Your task to perform on an android device: open a bookmark in the chrome app Image 0: 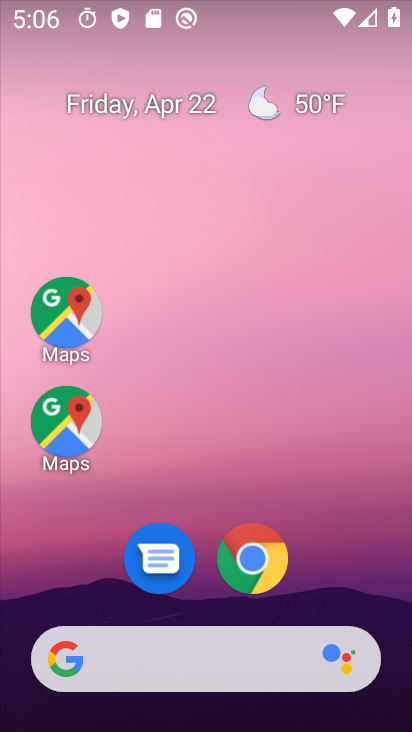
Step 0: click (268, 564)
Your task to perform on an android device: open a bookmark in the chrome app Image 1: 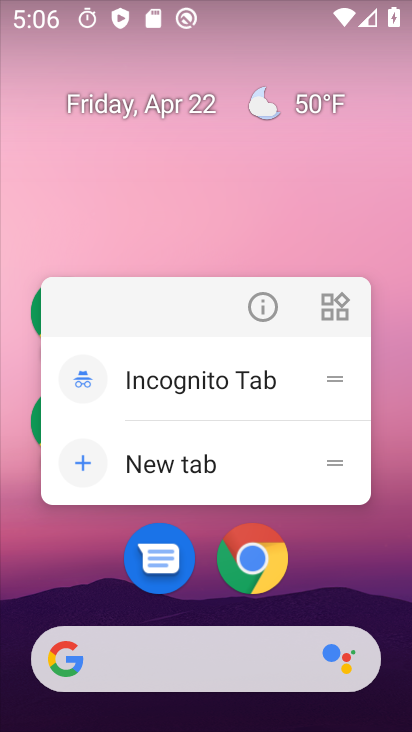
Step 1: click (258, 579)
Your task to perform on an android device: open a bookmark in the chrome app Image 2: 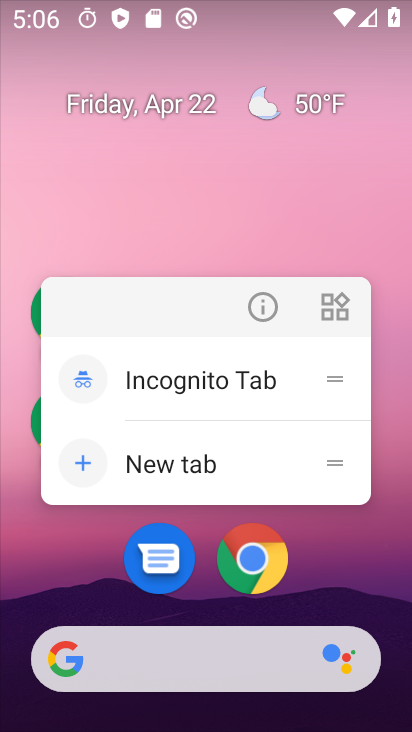
Step 2: click (263, 568)
Your task to perform on an android device: open a bookmark in the chrome app Image 3: 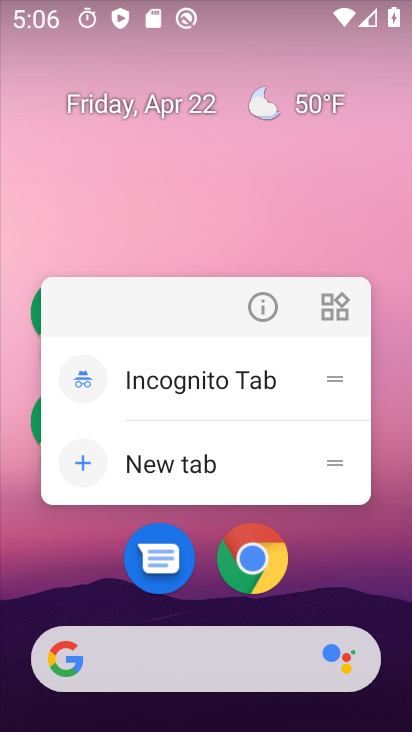
Step 3: click (265, 580)
Your task to perform on an android device: open a bookmark in the chrome app Image 4: 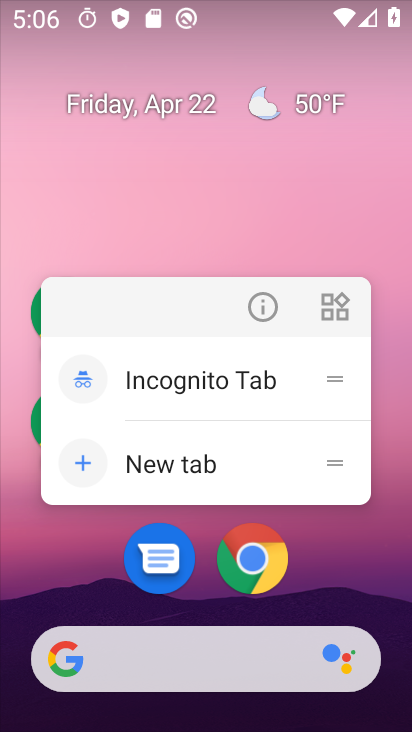
Step 4: click (247, 556)
Your task to perform on an android device: open a bookmark in the chrome app Image 5: 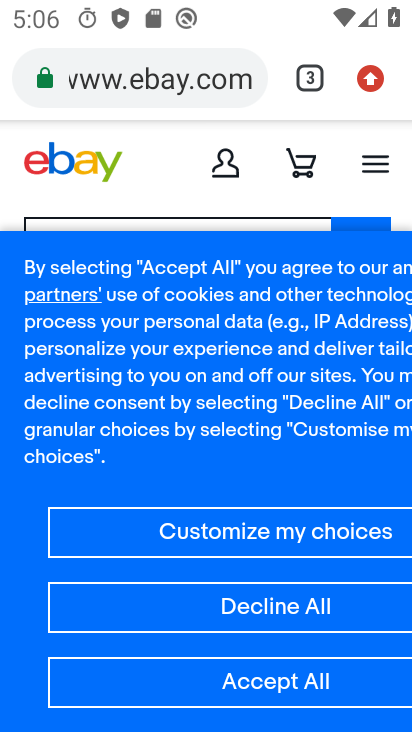
Step 5: click (368, 85)
Your task to perform on an android device: open a bookmark in the chrome app Image 6: 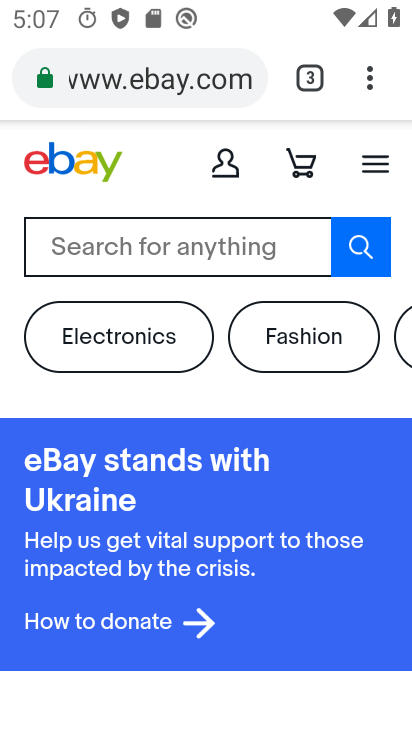
Step 6: click (370, 81)
Your task to perform on an android device: open a bookmark in the chrome app Image 7: 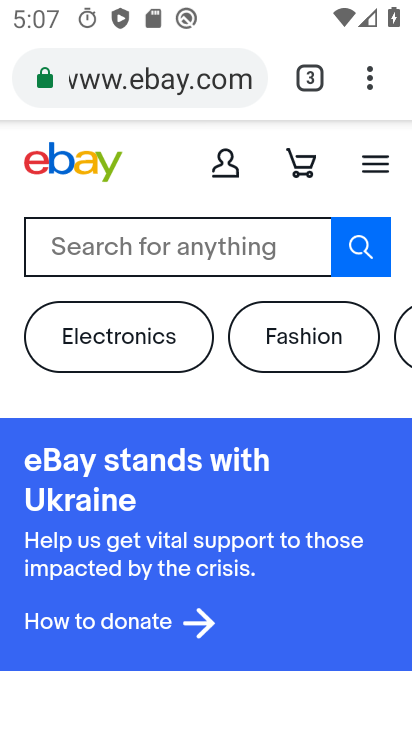
Step 7: click (373, 84)
Your task to perform on an android device: open a bookmark in the chrome app Image 8: 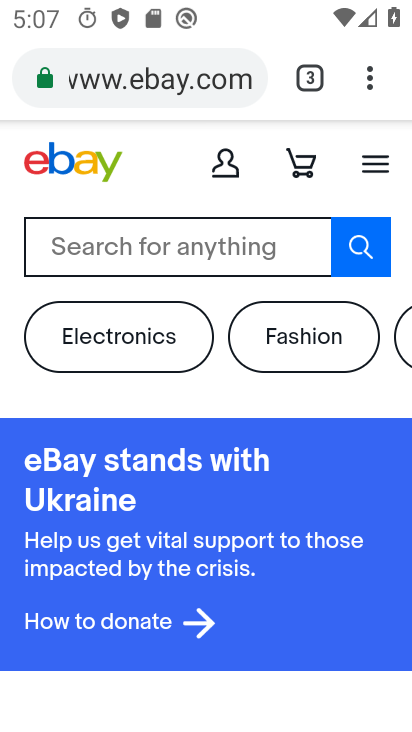
Step 8: click (365, 84)
Your task to perform on an android device: open a bookmark in the chrome app Image 9: 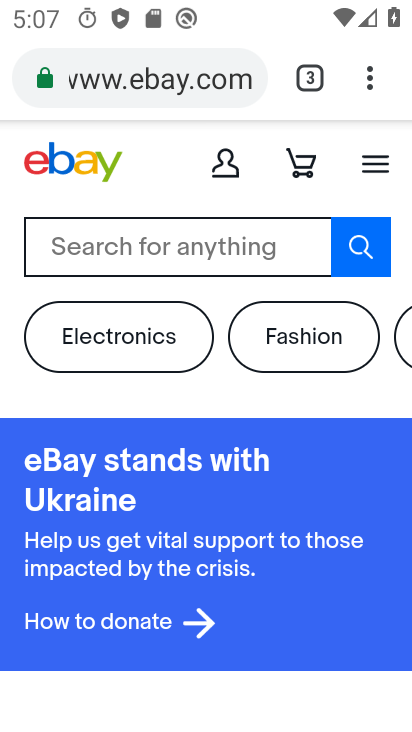
Step 9: click (366, 79)
Your task to perform on an android device: open a bookmark in the chrome app Image 10: 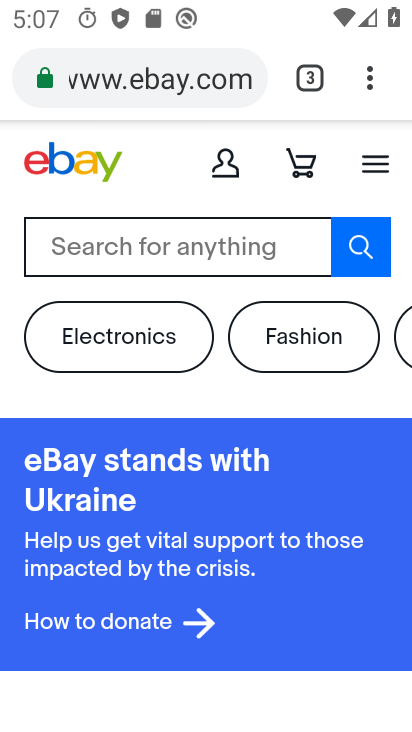
Step 10: click (372, 71)
Your task to perform on an android device: open a bookmark in the chrome app Image 11: 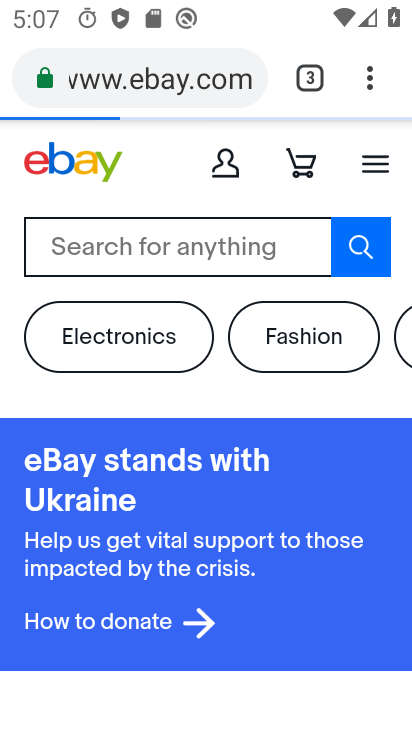
Step 11: click (372, 76)
Your task to perform on an android device: open a bookmark in the chrome app Image 12: 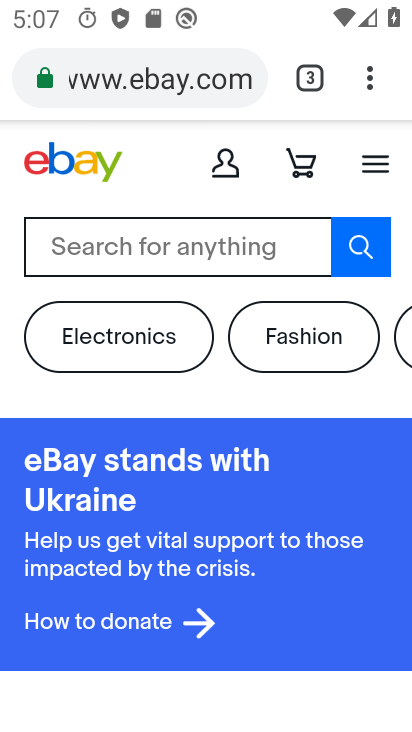
Step 12: click (375, 85)
Your task to perform on an android device: open a bookmark in the chrome app Image 13: 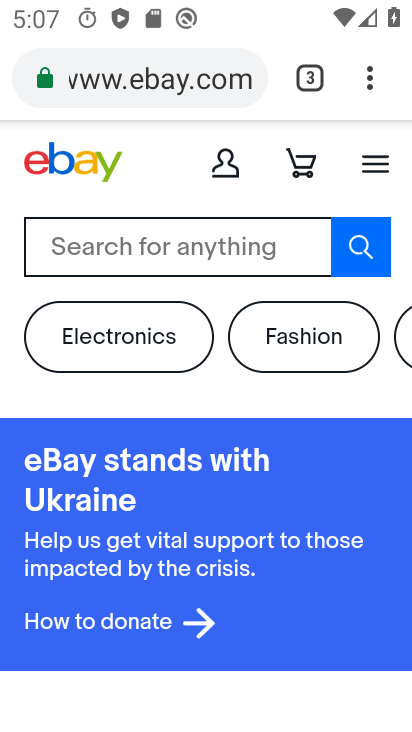
Step 13: click (372, 75)
Your task to perform on an android device: open a bookmark in the chrome app Image 14: 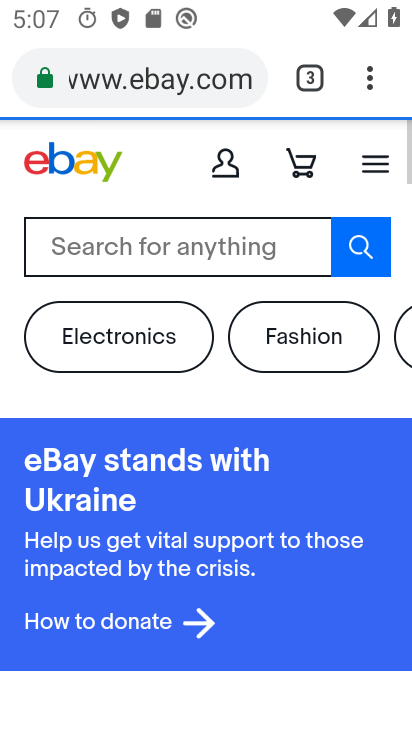
Step 14: click (372, 76)
Your task to perform on an android device: open a bookmark in the chrome app Image 15: 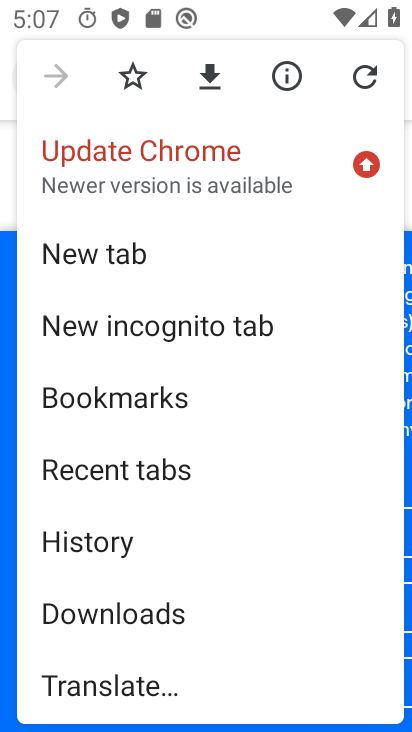
Step 15: click (109, 410)
Your task to perform on an android device: open a bookmark in the chrome app Image 16: 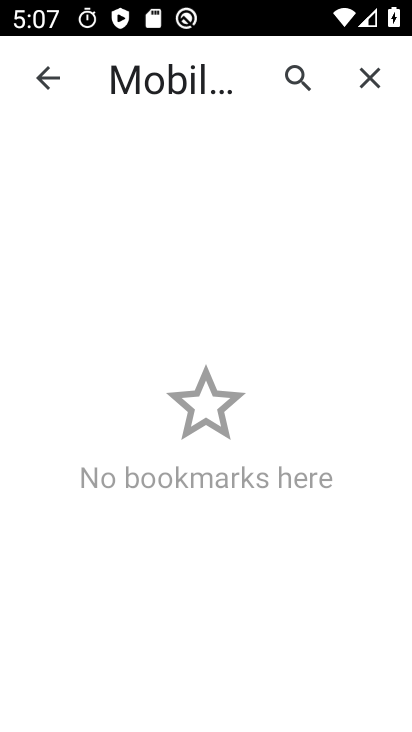
Step 16: task complete